Your task to perform on an android device: Open settings Image 0: 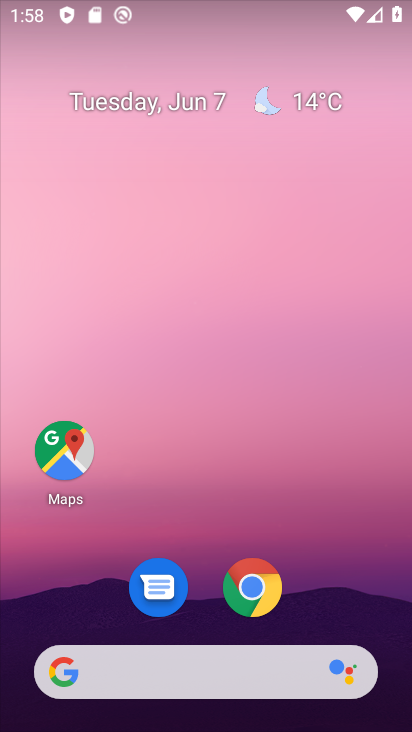
Step 0: drag from (91, 633) to (208, 73)
Your task to perform on an android device: Open settings Image 1: 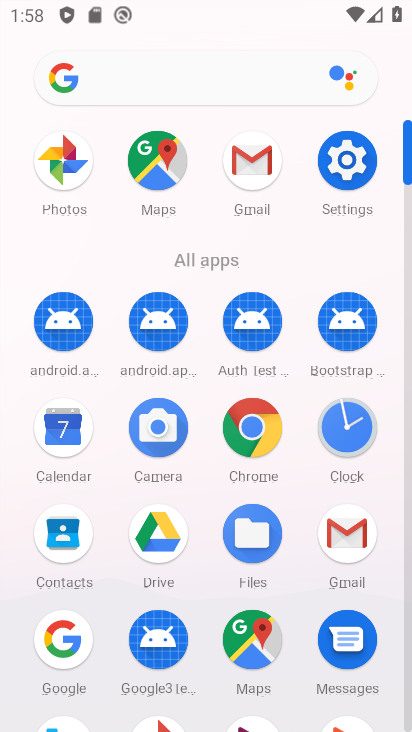
Step 1: drag from (120, 632) to (221, 181)
Your task to perform on an android device: Open settings Image 2: 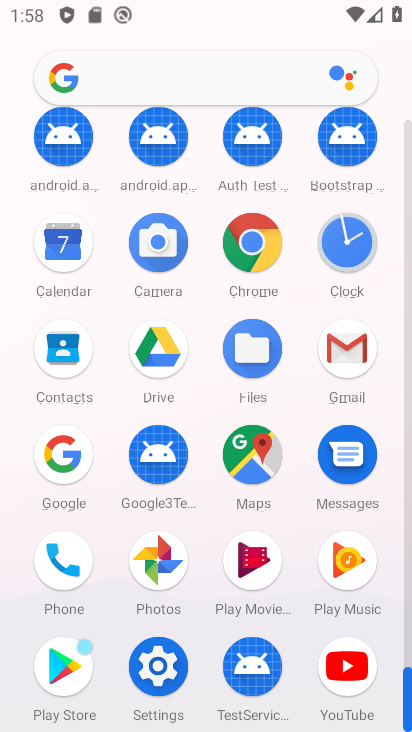
Step 2: click (163, 672)
Your task to perform on an android device: Open settings Image 3: 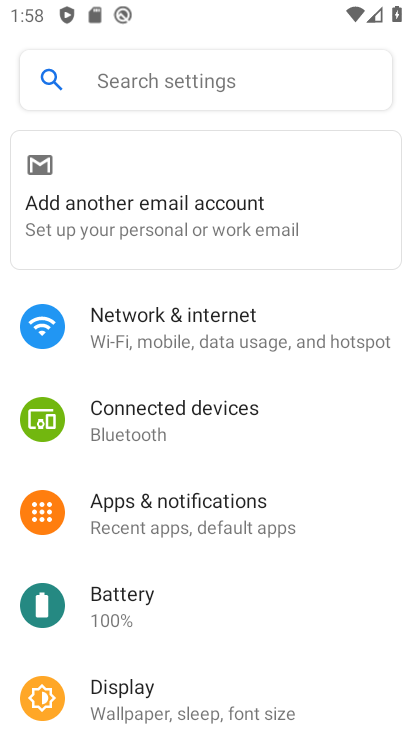
Step 3: task complete